Your task to perform on an android device: Go to CNN.com Image 0: 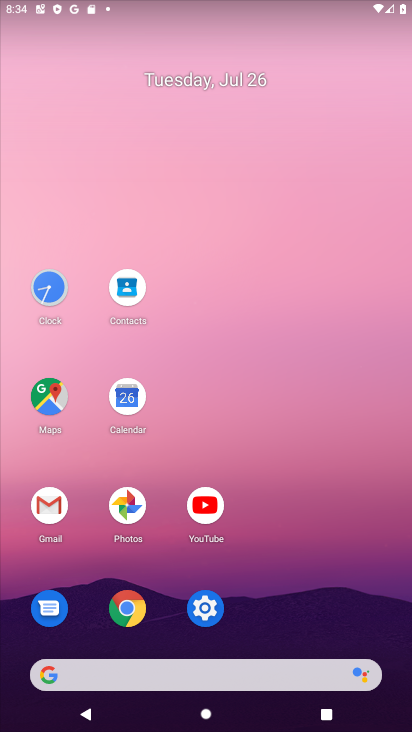
Step 0: click (124, 609)
Your task to perform on an android device: Go to CNN.com Image 1: 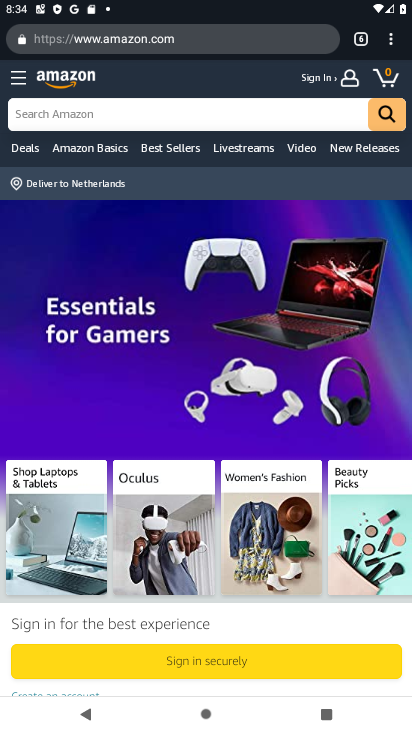
Step 1: click (392, 45)
Your task to perform on an android device: Go to CNN.com Image 2: 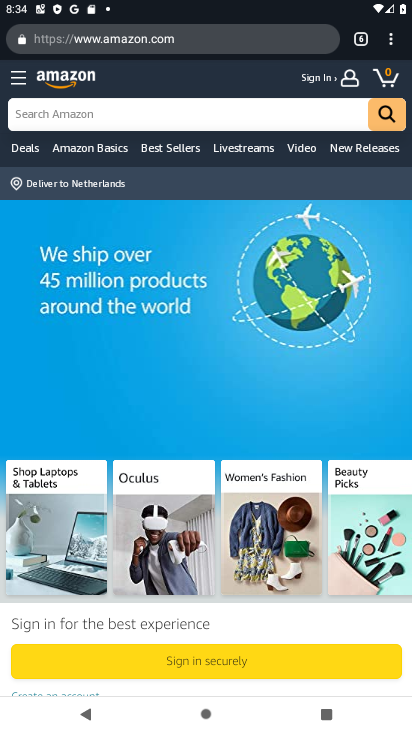
Step 2: click (391, 39)
Your task to perform on an android device: Go to CNN.com Image 3: 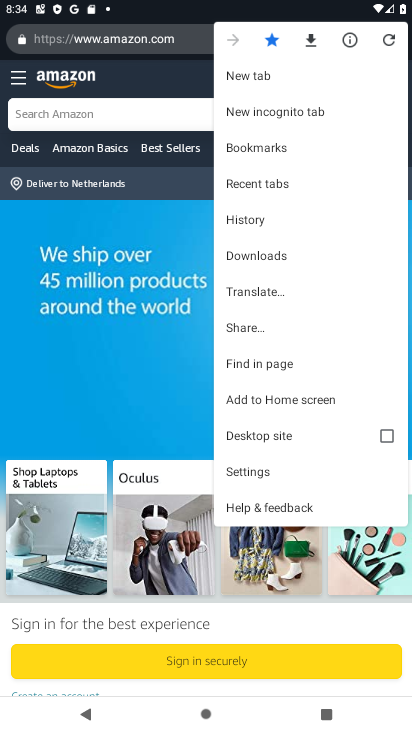
Step 3: click (257, 72)
Your task to perform on an android device: Go to CNN.com Image 4: 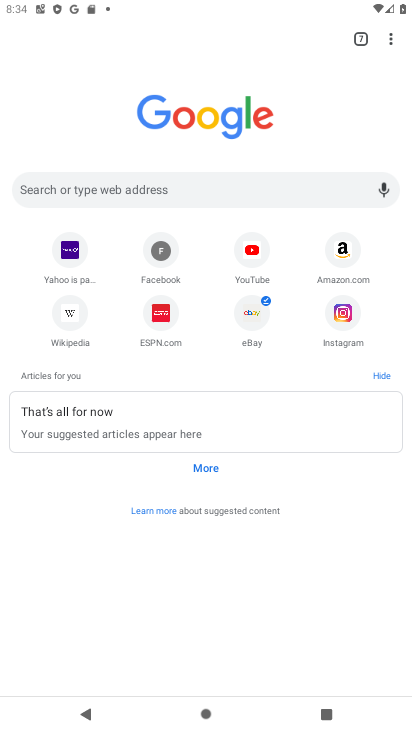
Step 4: click (134, 182)
Your task to perform on an android device: Go to CNN.com Image 5: 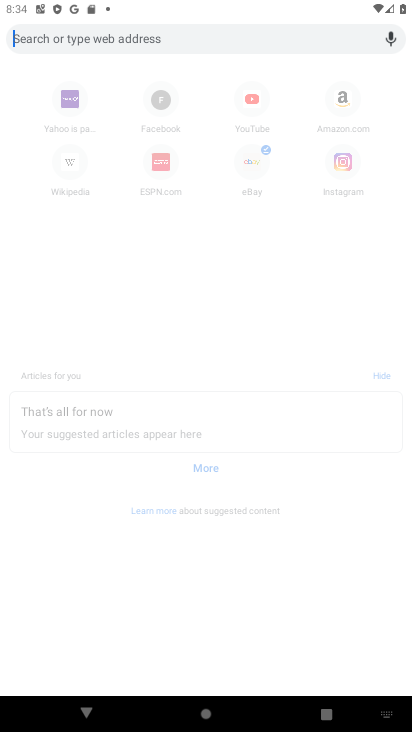
Step 5: type "cnn.com"
Your task to perform on an android device: Go to CNN.com Image 6: 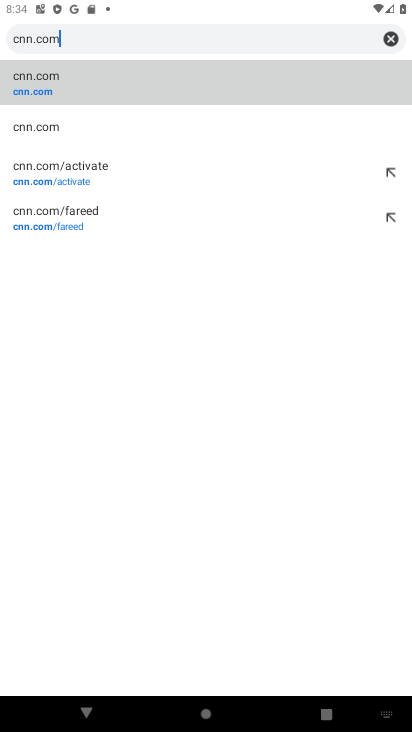
Step 6: click (26, 82)
Your task to perform on an android device: Go to CNN.com Image 7: 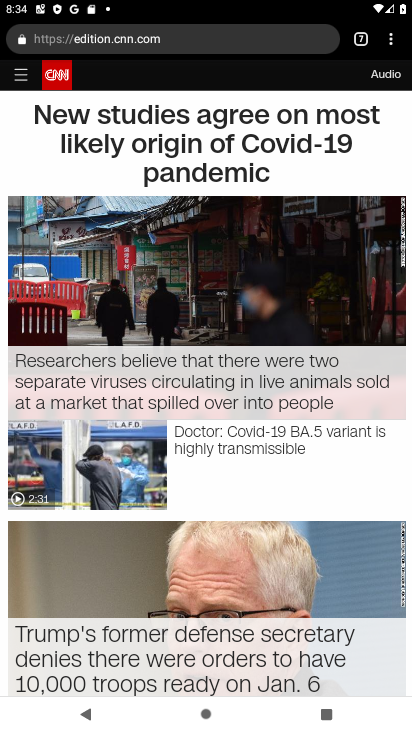
Step 7: task complete